Your task to perform on an android device: turn on javascript in the chrome app Image 0: 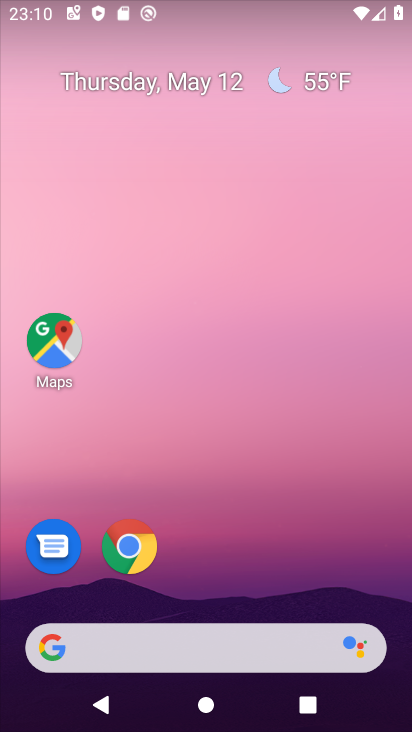
Step 0: click (132, 546)
Your task to perform on an android device: turn on javascript in the chrome app Image 1: 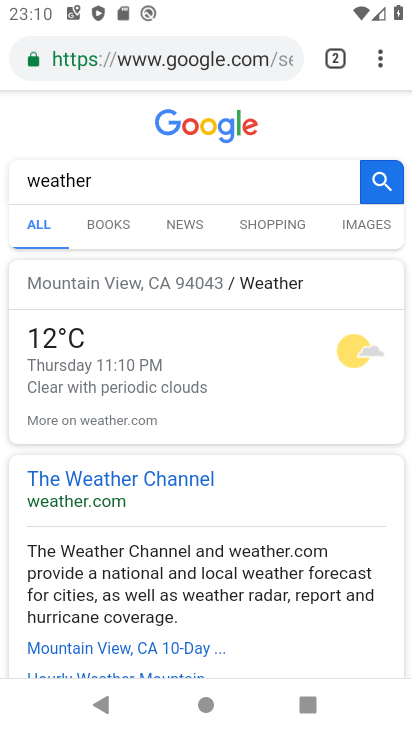
Step 1: click (382, 51)
Your task to perform on an android device: turn on javascript in the chrome app Image 2: 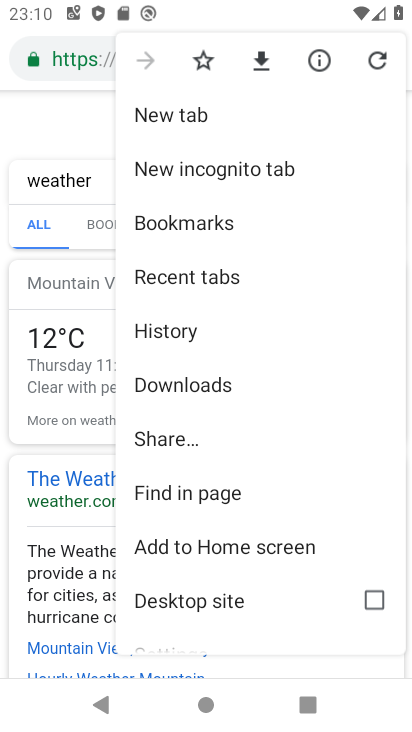
Step 2: drag from (191, 574) to (249, 202)
Your task to perform on an android device: turn on javascript in the chrome app Image 3: 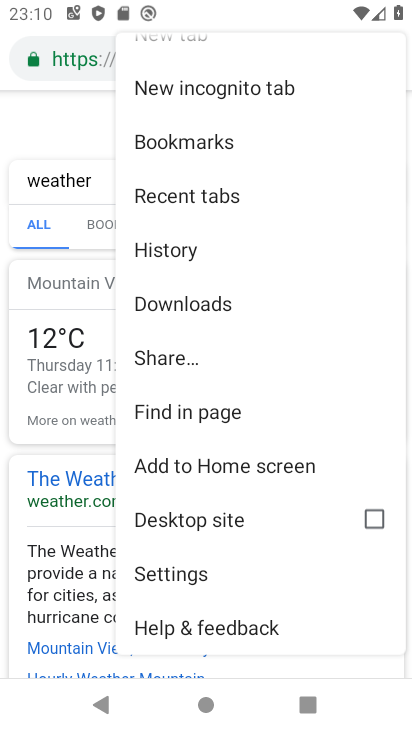
Step 3: click (165, 570)
Your task to perform on an android device: turn on javascript in the chrome app Image 4: 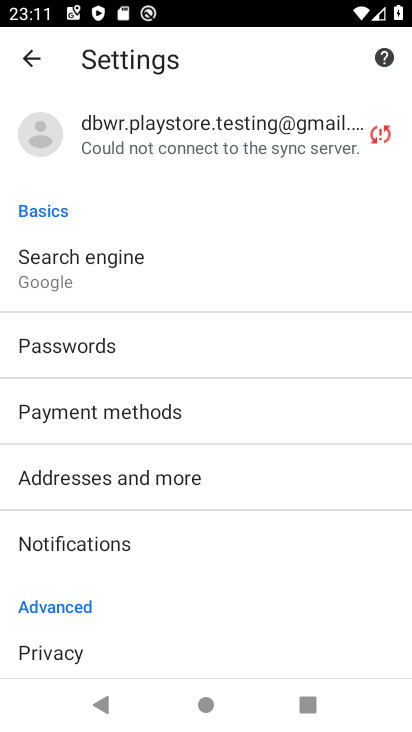
Step 4: click (200, 265)
Your task to perform on an android device: turn on javascript in the chrome app Image 5: 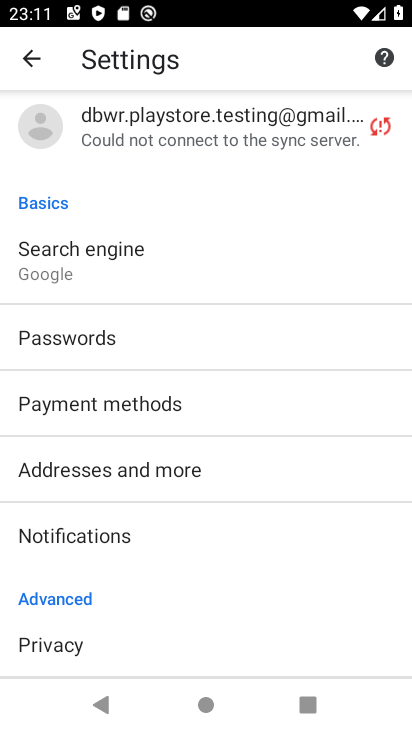
Step 5: drag from (113, 546) to (152, 225)
Your task to perform on an android device: turn on javascript in the chrome app Image 6: 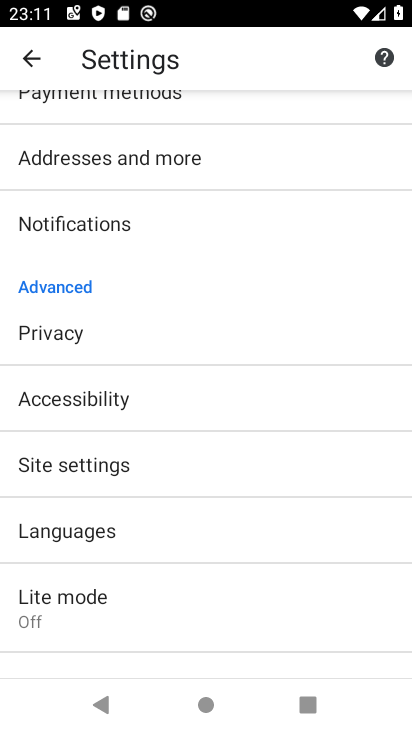
Step 6: click (83, 468)
Your task to perform on an android device: turn on javascript in the chrome app Image 7: 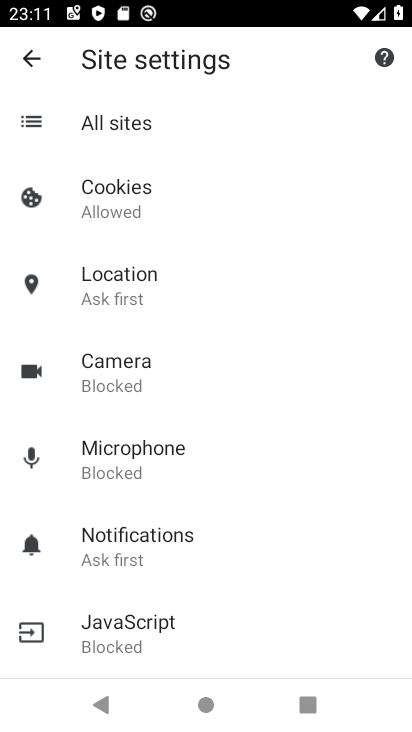
Step 7: click (134, 621)
Your task to perform on an android device: turn on javascript in the chrome app Image 8: 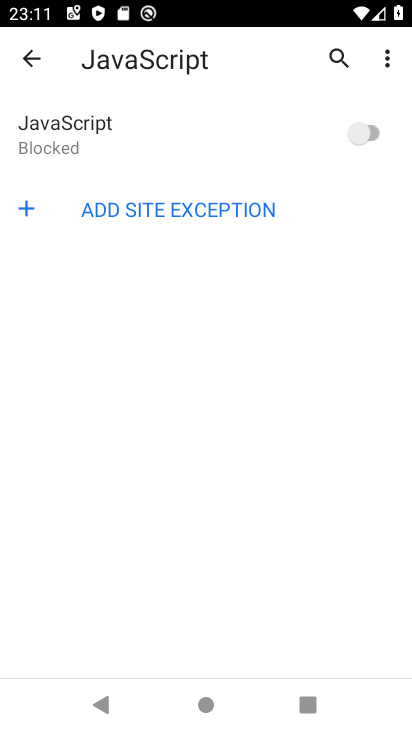
Step 8: click (367, 129)
Your task to perform on an android device: turn on javascript in the chrome app Image 9: 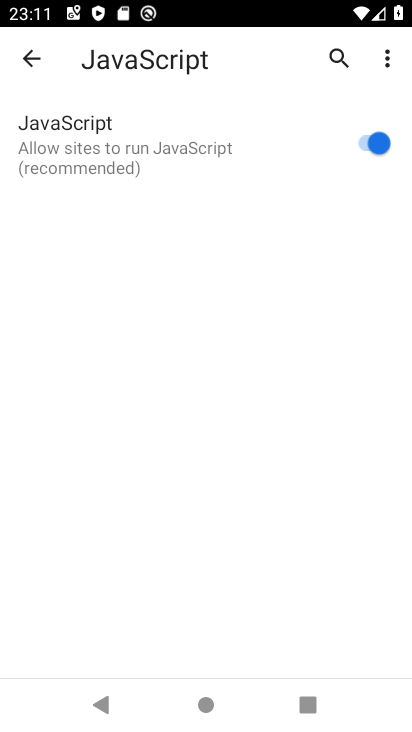
Step 9: task complete